Your task to perform on an android device: open wifi settings Image 0: 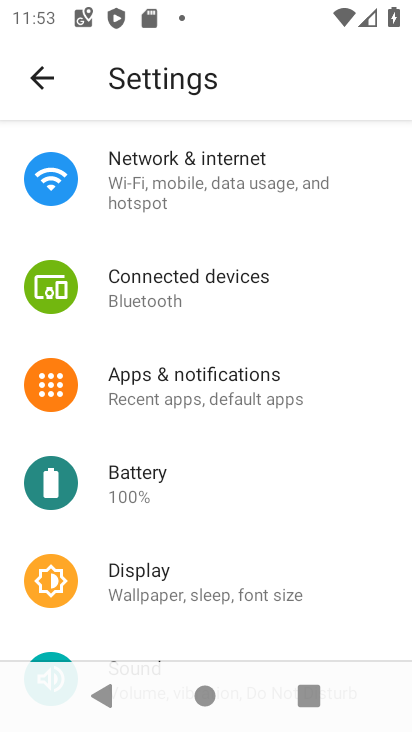
Step 0: click (228, 175)
Your task to perform on an android device: open wifi settings Image 1: 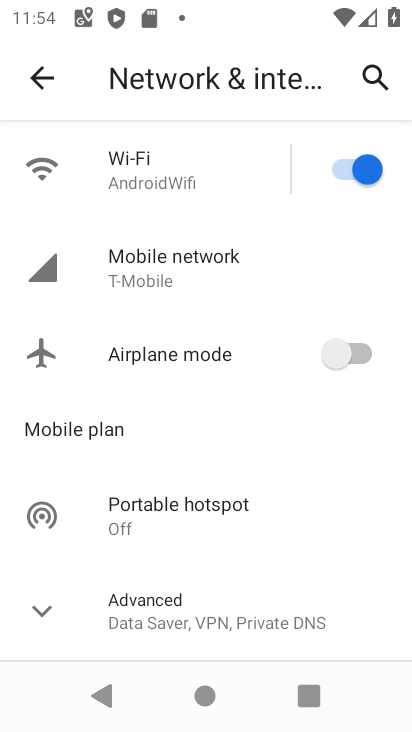
Step 1: click (195, 189)
Your task to perform on an android device: open wifi settings Image 2: 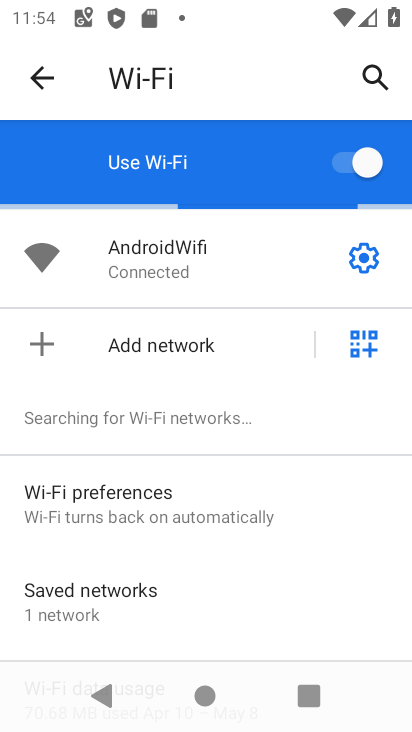
Step 2: task complete